Your task to perform on an android device: change the clock display to show seconds Image 0: 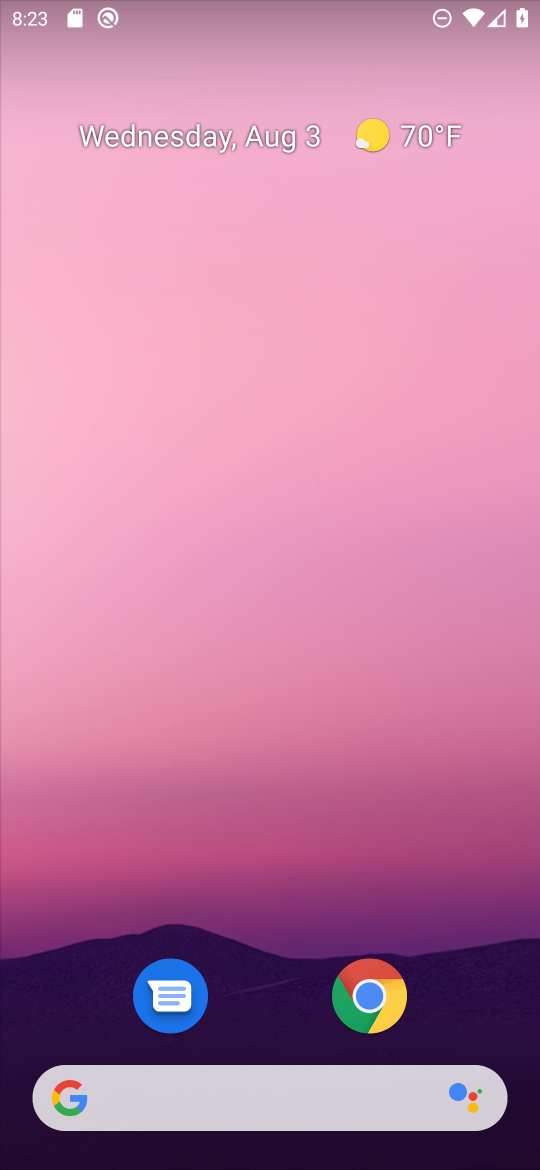
Step 0: drag from (279, 924) to (252, 0)
Your task to perform on an android device: change the clock display to show seconds Image 1: 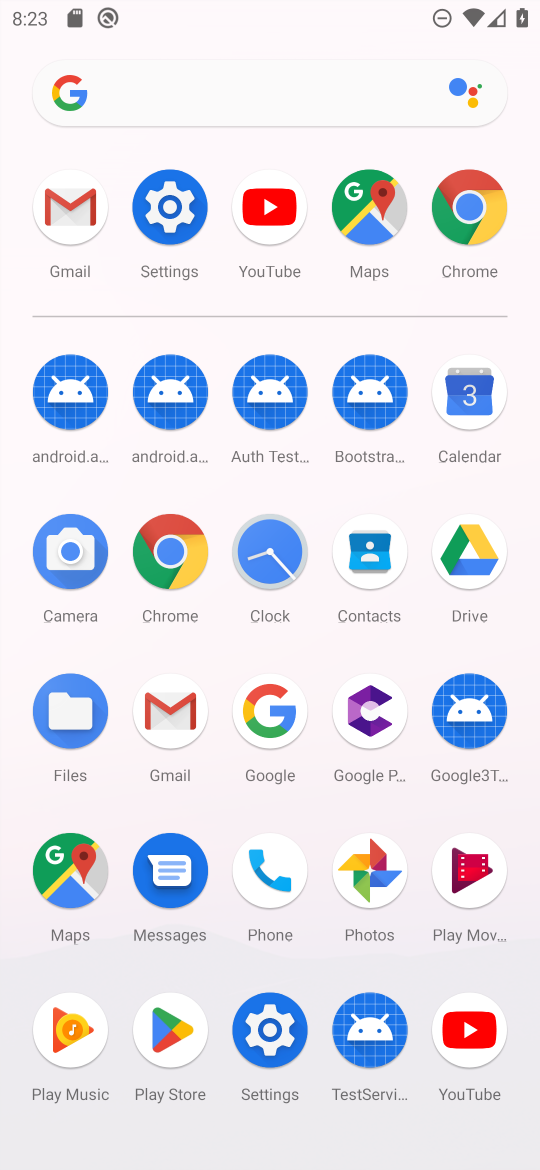
Step 1: click (180, 212)
Your task to perform on an android device: change the clock display to show seconds Image 2: 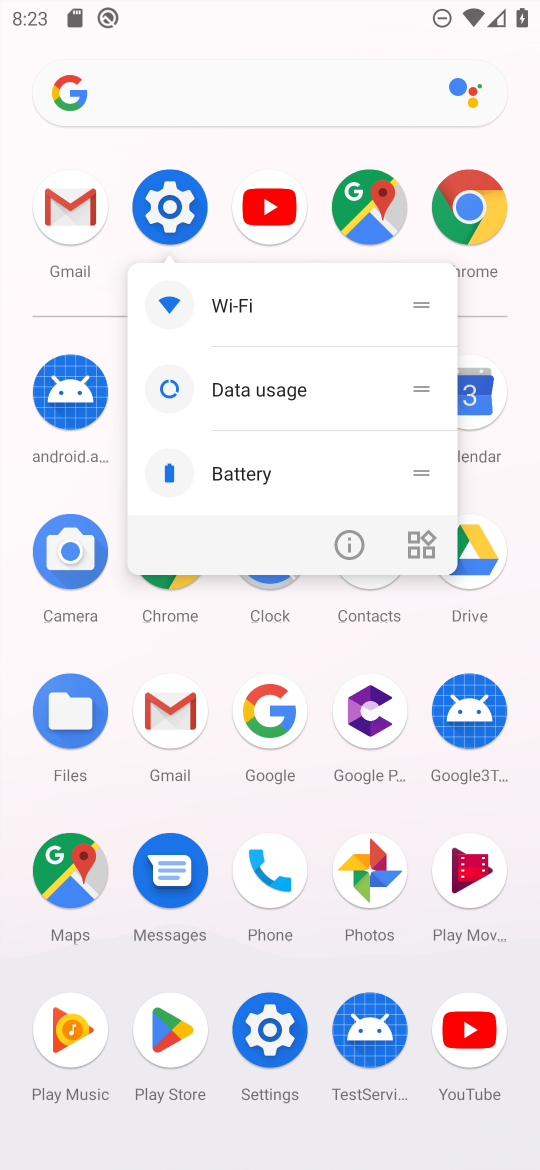
Step 2: click (180, 209)
Your task to perform on an android device: change the clock display to show seconds Image 3: 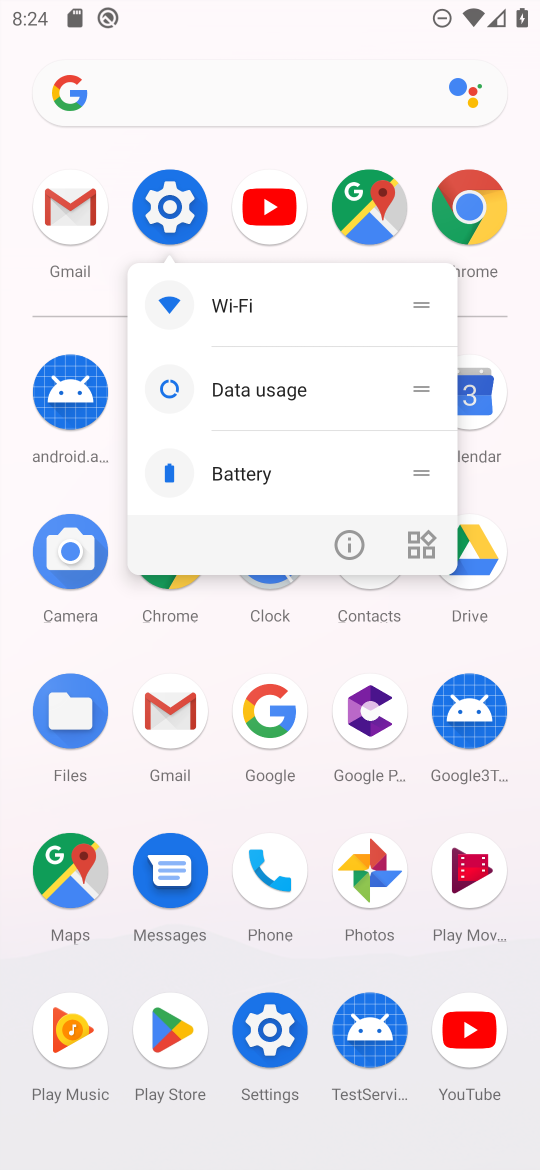
Step 3: click (514, 491)
Your task to perform on an android device: change the clock display to show seconds Image 4: 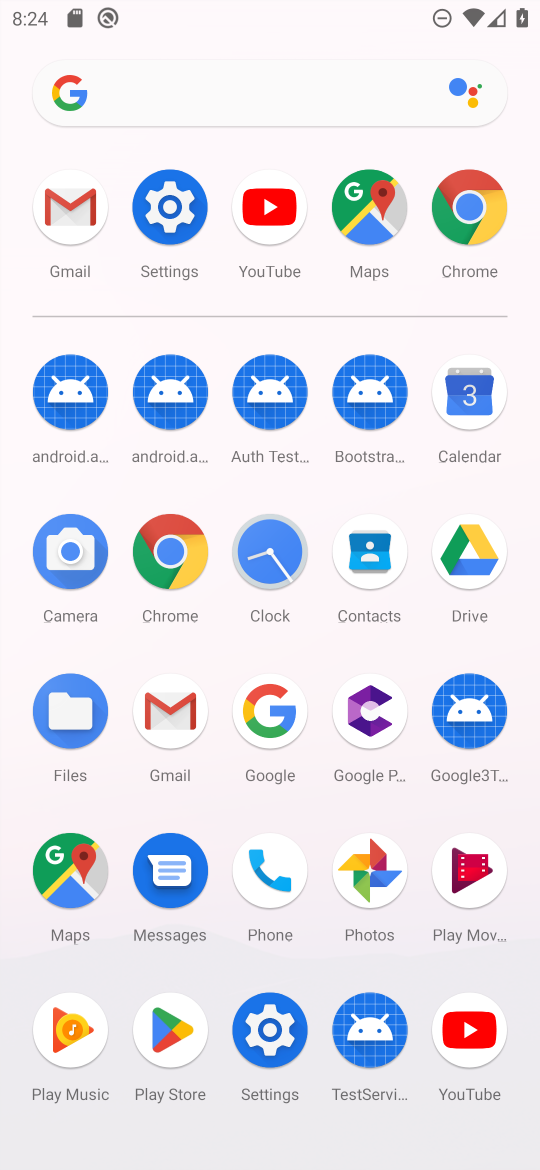
Step 4: click (280, 555)
Your task to perform on an android device: change the clock display to show seconds Image 5: 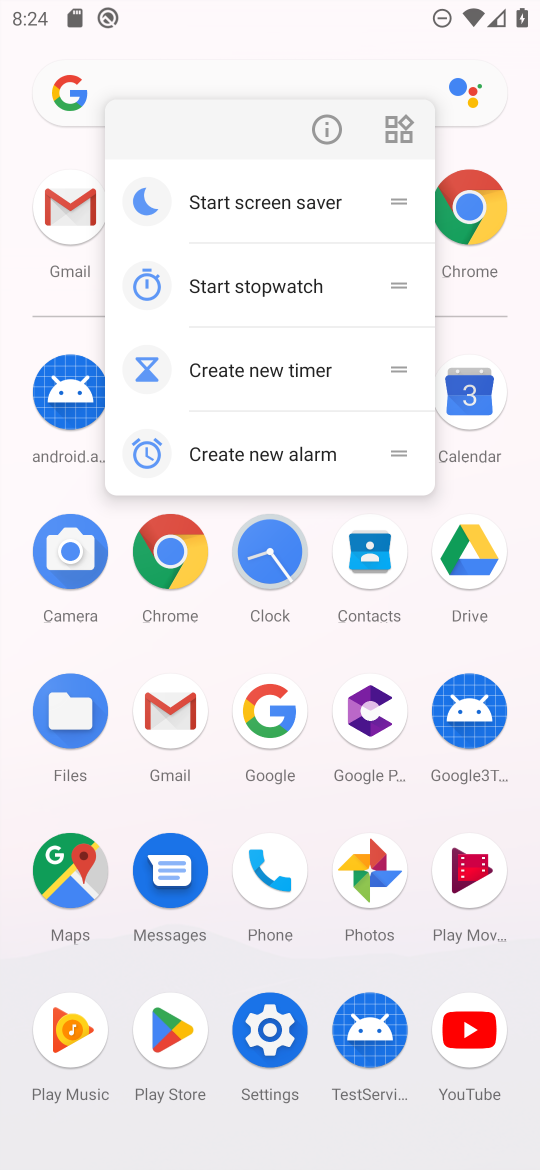
Step 5: click (280, 555)
Your task to perform on an android device: change the clock display to show seconds Image 6: 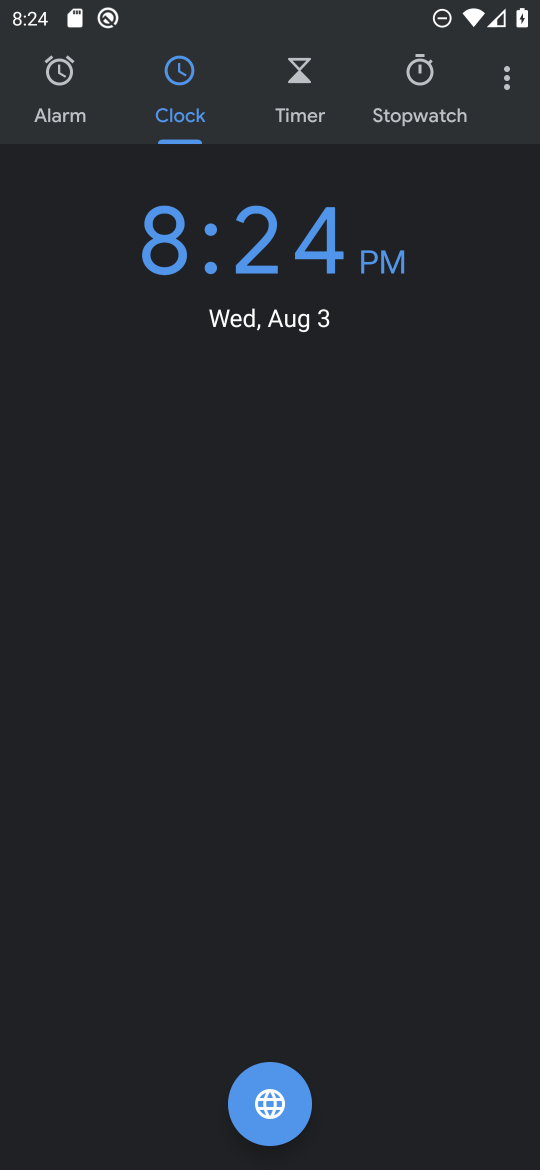
Step 6: click (502, 82)
Your task to perform on an android device: change the clock display to show seconds Image 7: 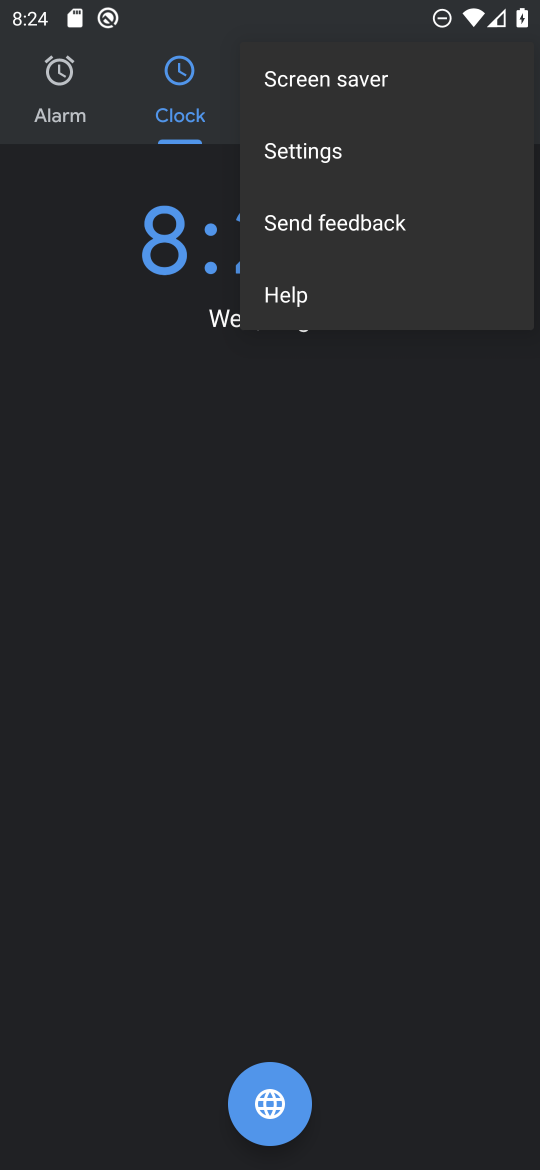
Step 7: click (420, 157)
Your task to perform on an android device: change the clock display to show seconds Image 8: 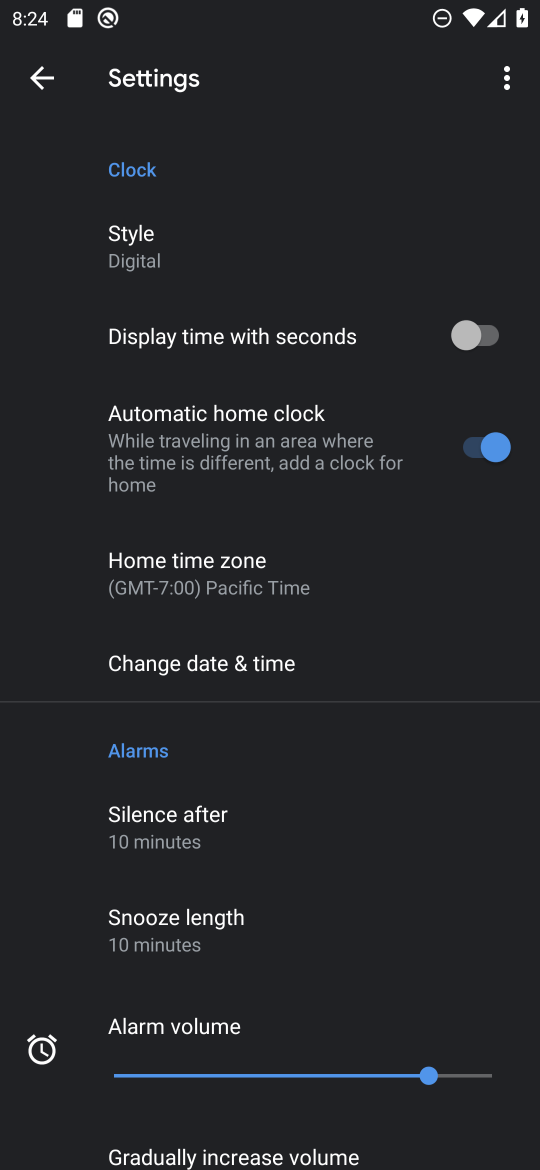
Step 8: click (474, 332)
Your task to perform on an android device: change the clock display to show seconds Image 9: 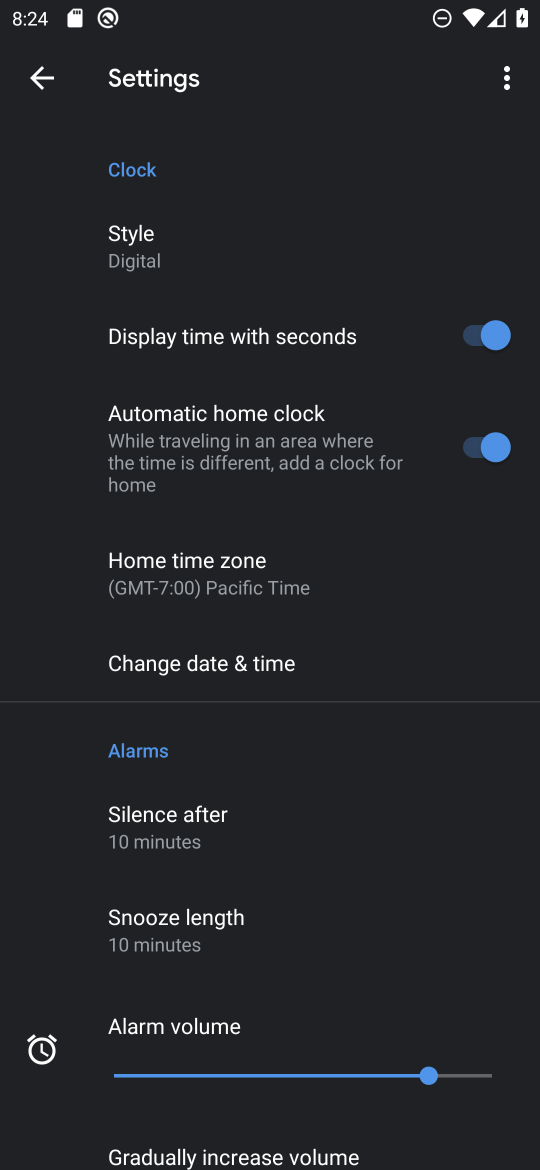
Step 9: click (47, 88)
Your task to perform on an android device: change the clock display to show seconds Image 10: 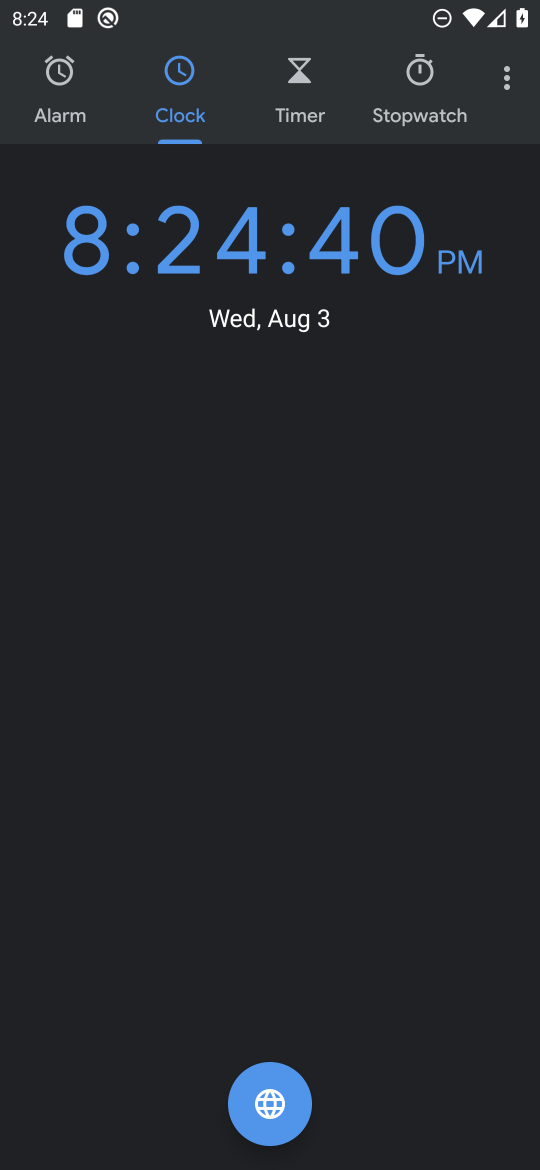
Step 10: task complete